Your task to perform on an android device: Open battery settings Image 0: 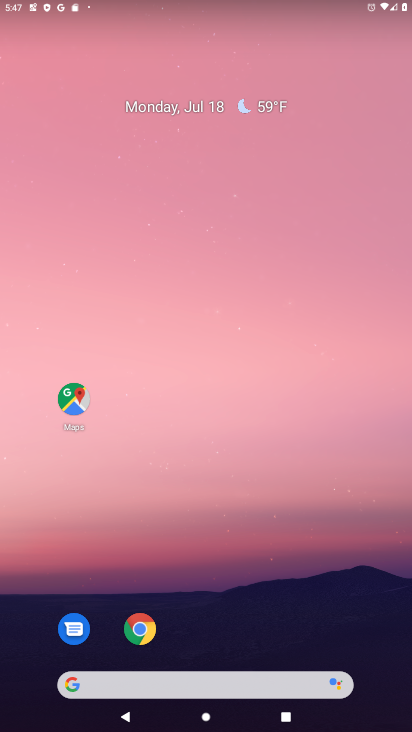
Step 0: drag from (307, 526) to (264, 77)
Your task to perform on an android device: Open battery settings Image 1: 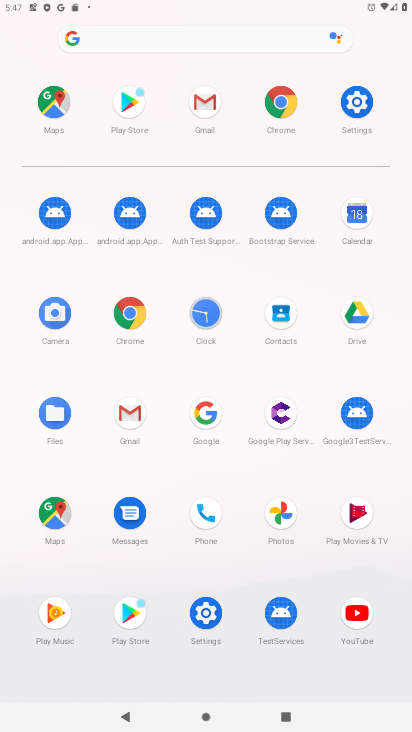
Step 1: click (353, 104)
Your task to perform on an android device: Open battery settings Image 2: 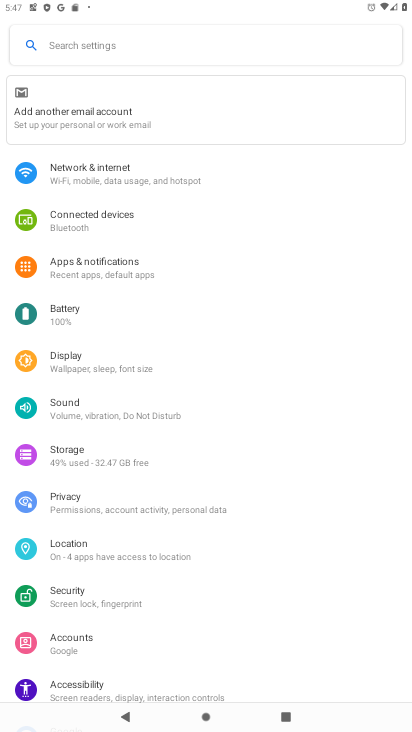
Step 2: click (67, 320)
Your task to perform on an android device: Open battery settings Image 3: 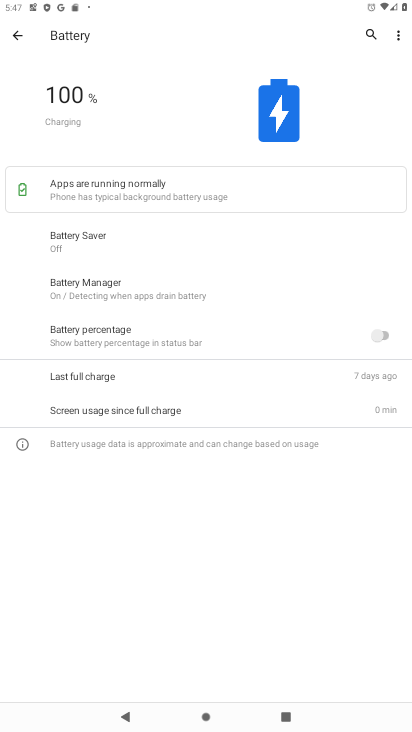
Step 3: task complete